Your task to perform on an android device: Go to Reddit.com Image 0: 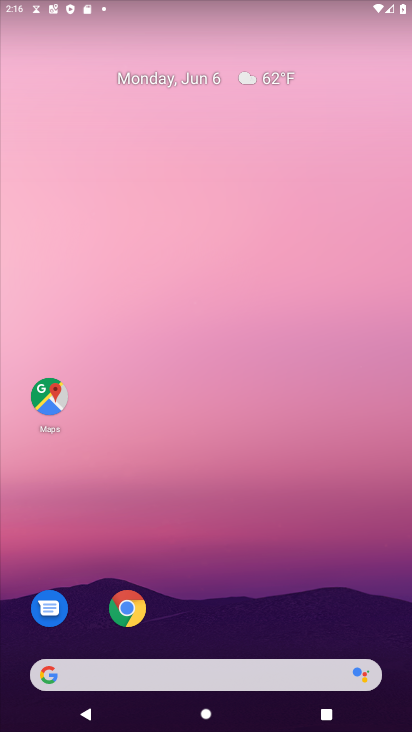
Step 0: drag from (279, 580) to (271, 59)
Your task to perform on an android device: Go to Reddit.com Image 1: 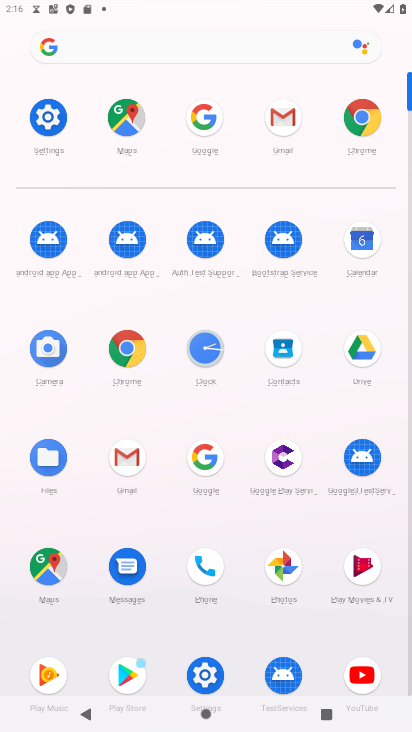
Step 1: click (359, 123)
Your task to perform on an android device: Go to Reddit.com Image 2: 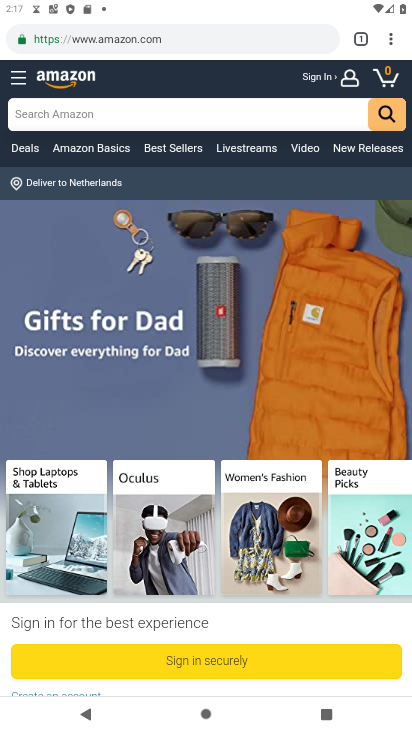
Step 2: click (139, 35)
Your task to perform on an android device: Go to Reddit.com Image 3: 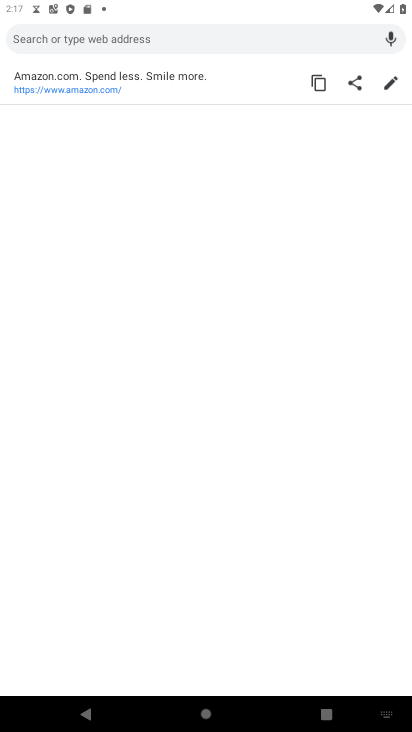
Step 3: type "reddit"
Your task to perform on an android device: Go to Reddit.com Image 4: 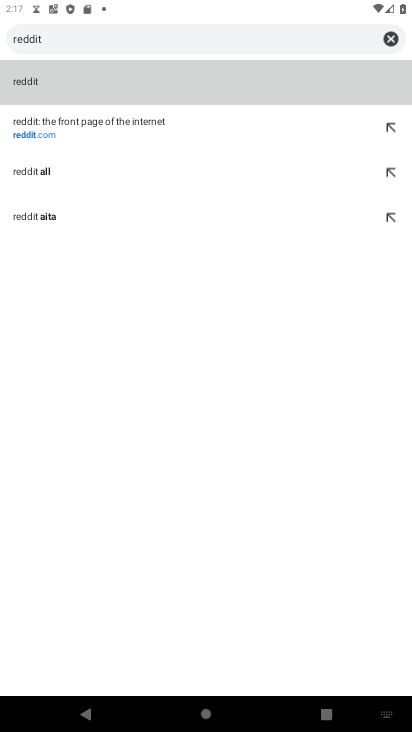
Step 4: click (26, 125)
Your task to perform on an android device: Go to Reddit.com Image 5: 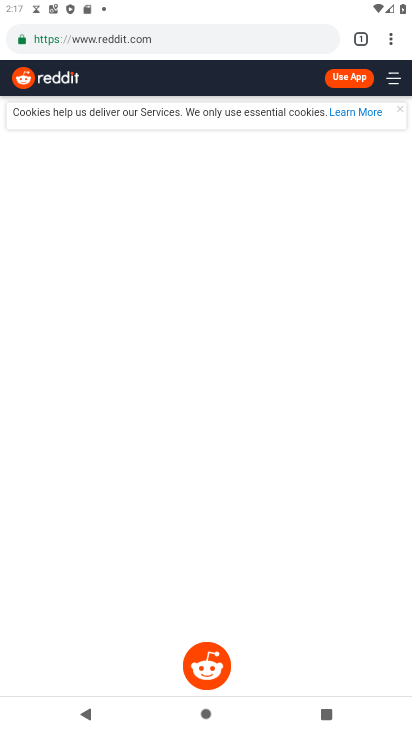
Step 5: task complete